Your task to perform on an android device: turn off smart reply in the gmail app Image 0: 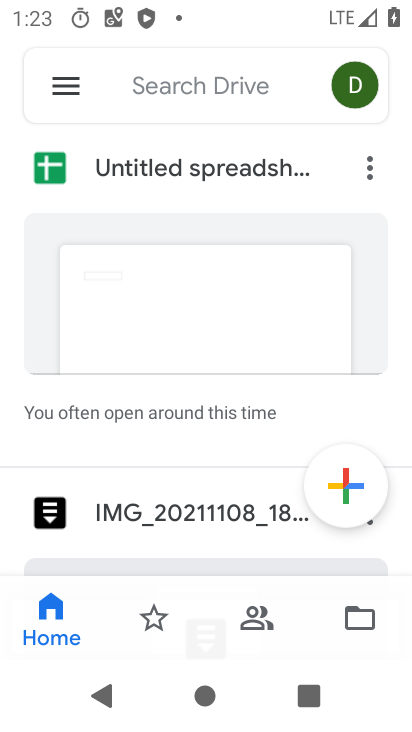
Step 0: press back button
Your task to perform on an android device: turn off smart reply in the gmail app Image 1: 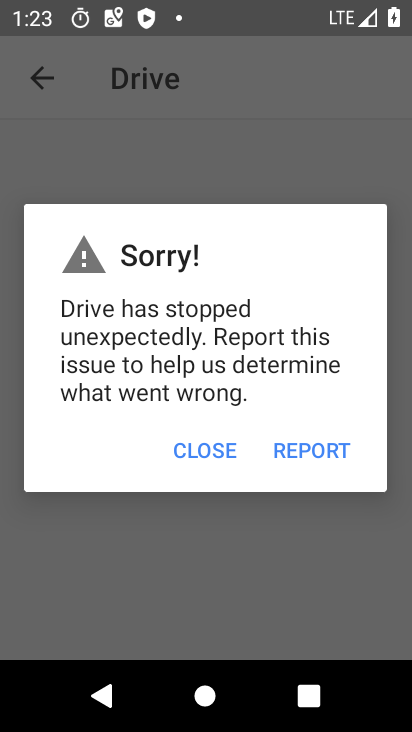
Step 1: press back button
Your task to perform on an android device: turn off smart reply in the gmail app Image 2: 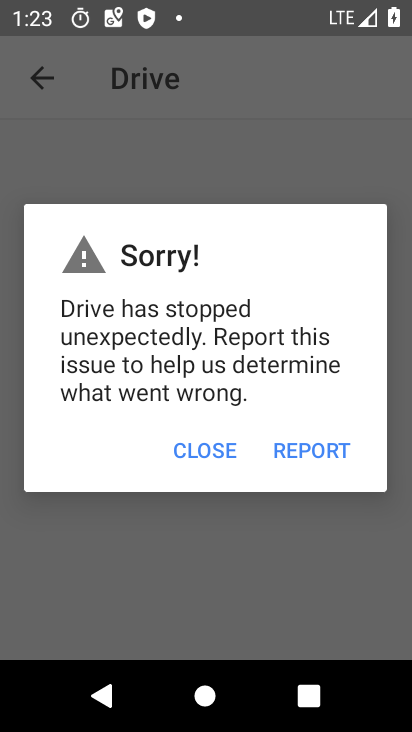
Step 2: press home button
Your task to perform on an android device: turn off smart reply in the gmail app Image 3: 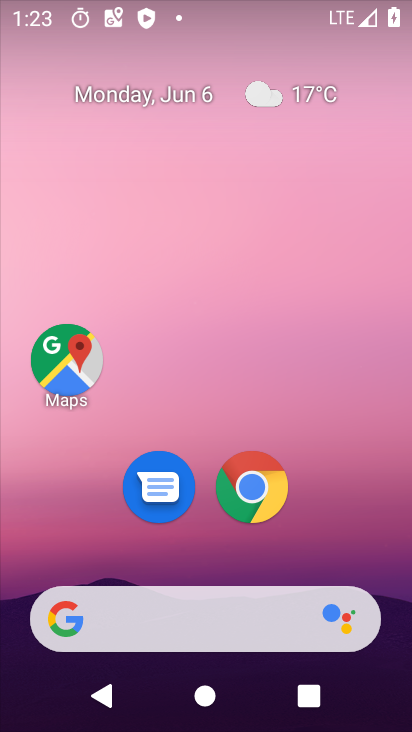
Step 3: drag from (215, 587) to (280, 79)
Your task to perform on an android device: turn off smart reply in the gmail app Image 4: 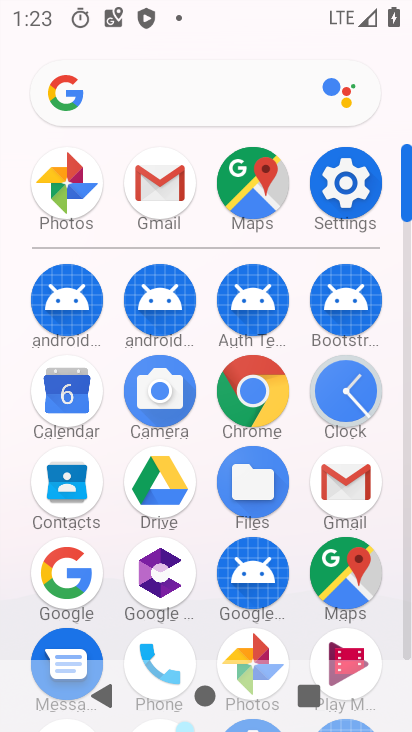
Step 4: click (165, 178)
Your task to perform on an android device: turn off smart reply in the gmail app Image 5: 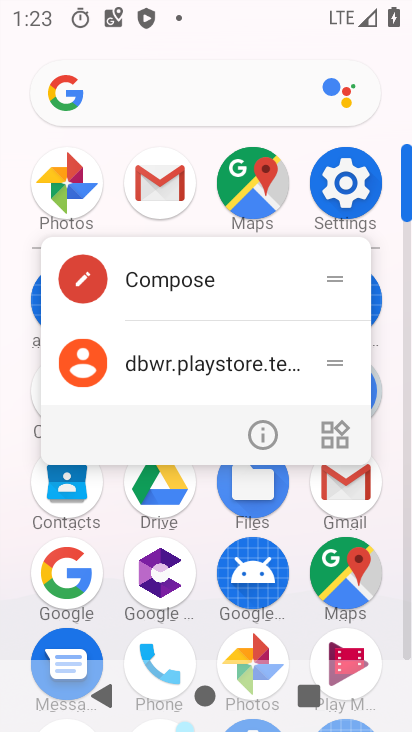
Step 5: click (153, 178)
Your task to perform on an android device: turn off smart reply in the gmail app Image 6: 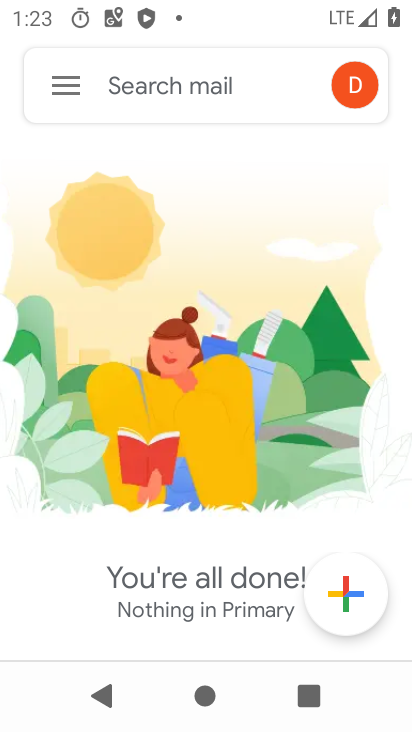
Step 6: click (67, 79)
Your task to perform on an android device: turn off smart reply in the gmail app Image 7: 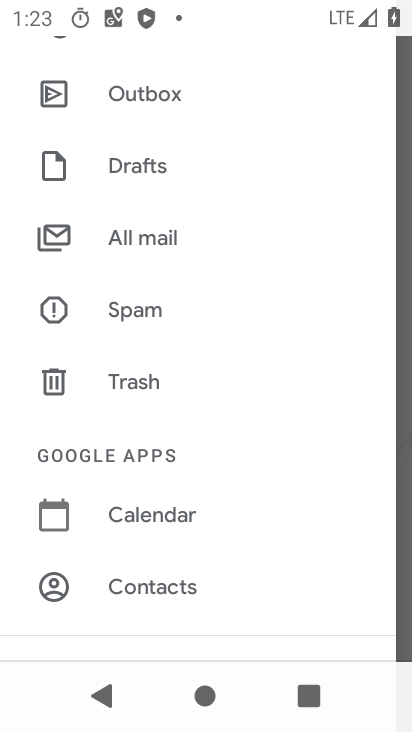
Step 7: drag from (175, 633) to (247, 101)
Your task to perform on an android device: turn off smart reply in the gmail app Image 8: 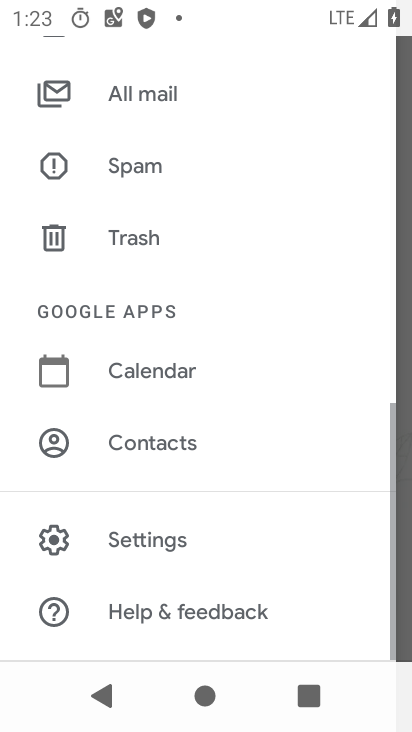
Step 8: click (132, 538)
Your task to perform on an android device: turn off smart reply in the gmail app Image 9: 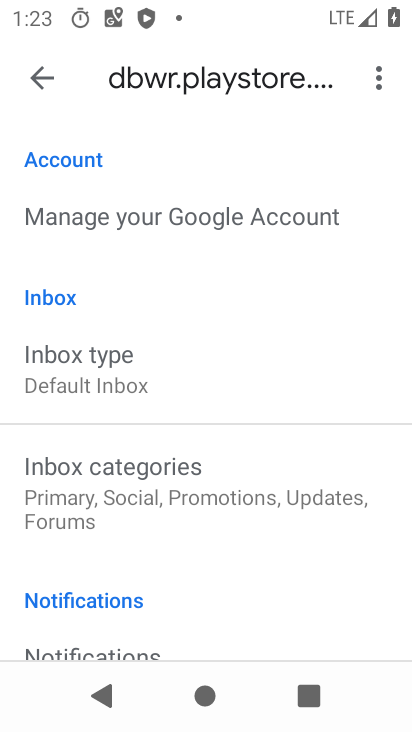
Step 9: task complete